Your task to perform on an android device: Go to Yahoo.com Image 0: 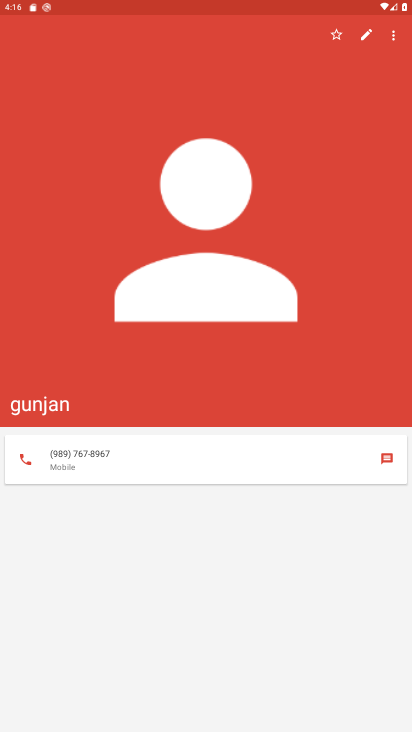
Step 0: press home button
Your task to perform on an android device: Go to Yahoo.com Image 1: 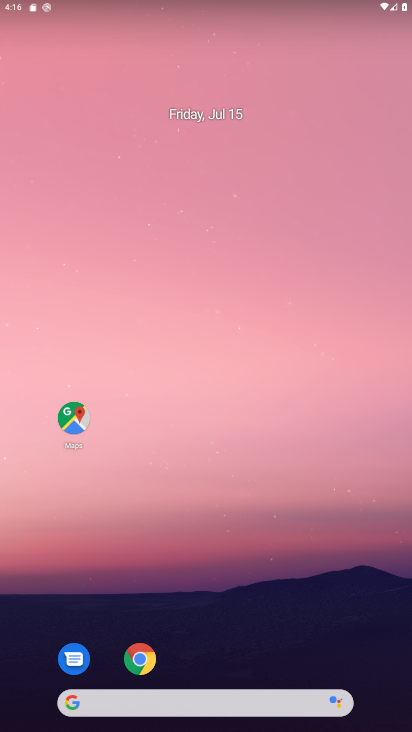
Step 1: drag from (265, 507) to (282, 40)
Your task to perform on an android device: Go to Yahoo.com Image 2: 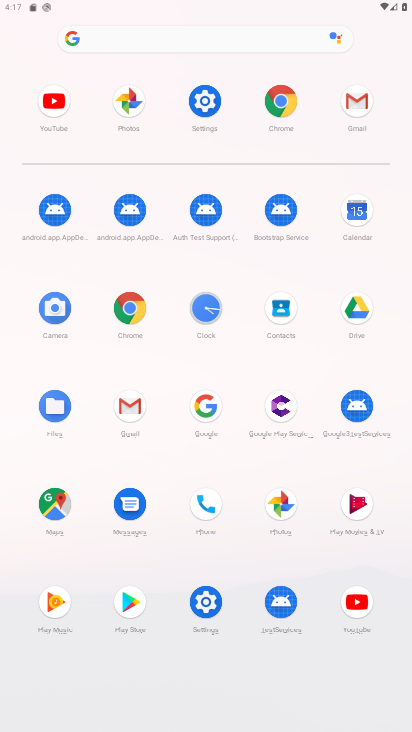
Step 2: click (130, 315)
Your task to perform on an android device: Go to Yahoo.com Image 3: 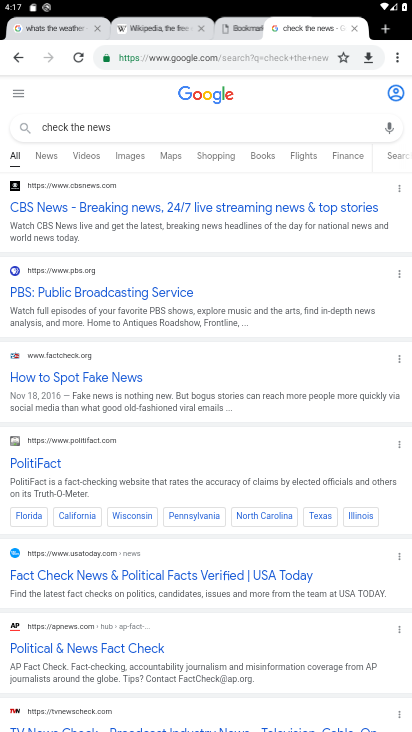
Step 3: click (243, 54)
Your task to perform on an android device: Go to Yahoo.com Image 4: 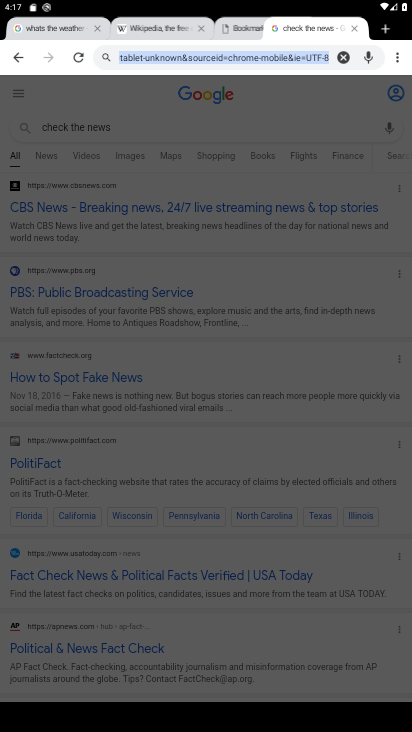
Step 4: type "yahoo.com"
Your task to perform on an android device: Go to Yahoo.com Image 5: 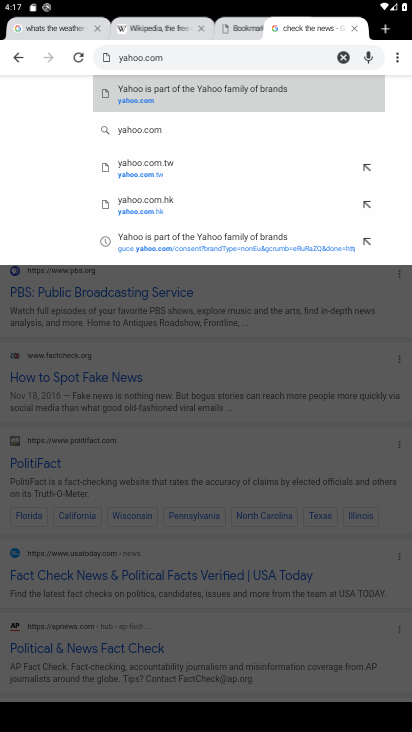
Step 5: click (145, 96)
Your task to perform on an android device: Go to Yahoo.com Image 6: 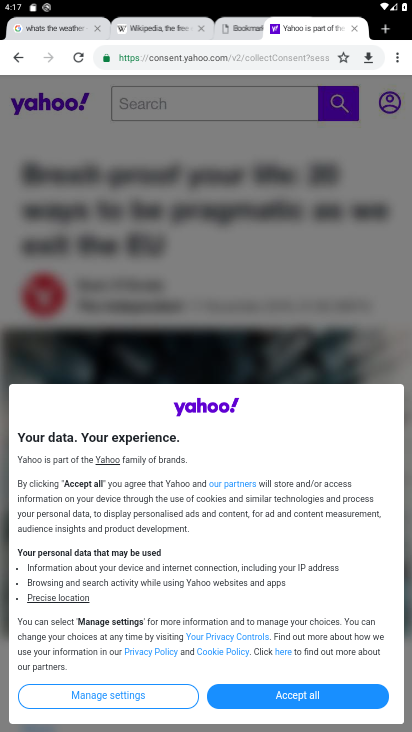
Step 6: task complete